Your task to perform on an android device: turn notification dots off Image 0: 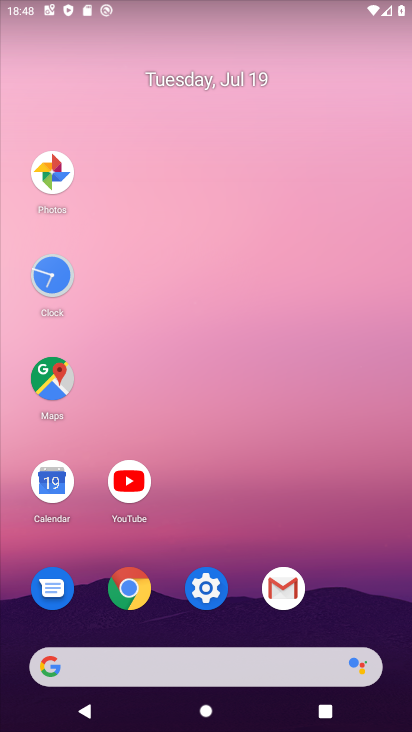
Step 0: click (206, 588)
Your task to perform on an android device: turn notification dots off Image 1: 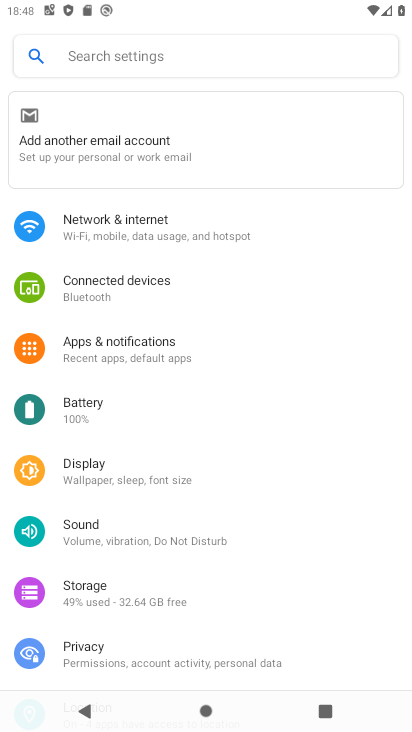
Step 1: click (115, 338)
Your task to perform on an android device: turn notification dots off Image 2: 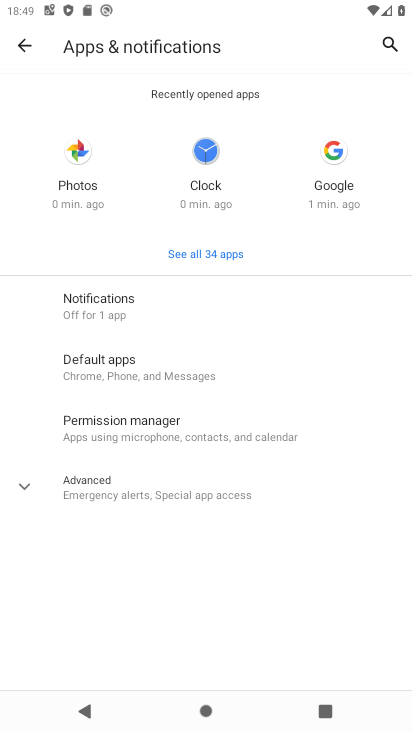
Step 2: click (34, 484)
Your task to perform on an android device: turn notification dots off Image 3: 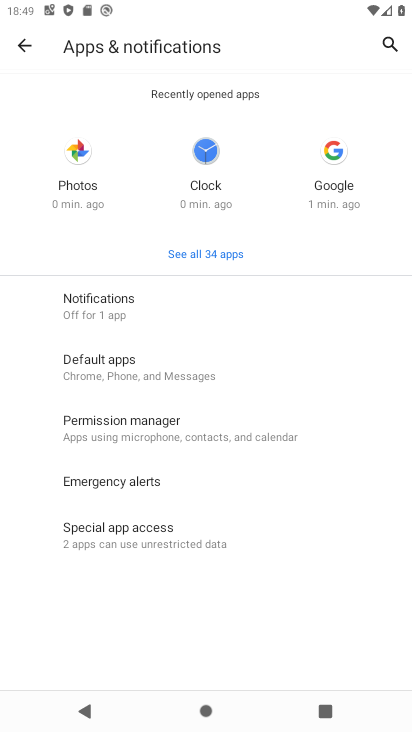
Step 3: click (105, 526)
Your task to perform on an android device: turn notification dots off Image 4: 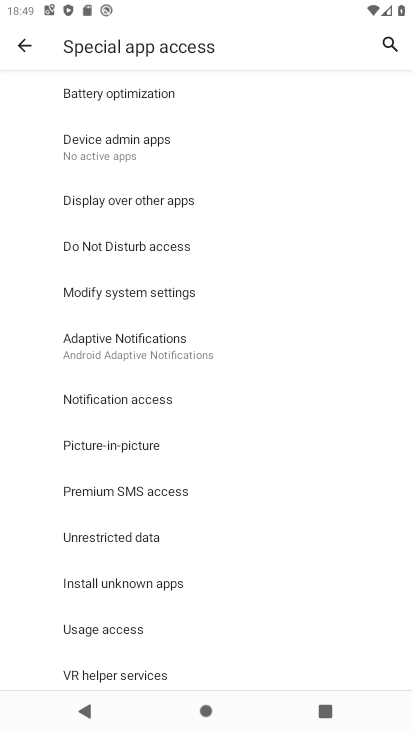
Step 4: click (20, 45)
Your task to perform on an android device: turn notification dots off Image 5: 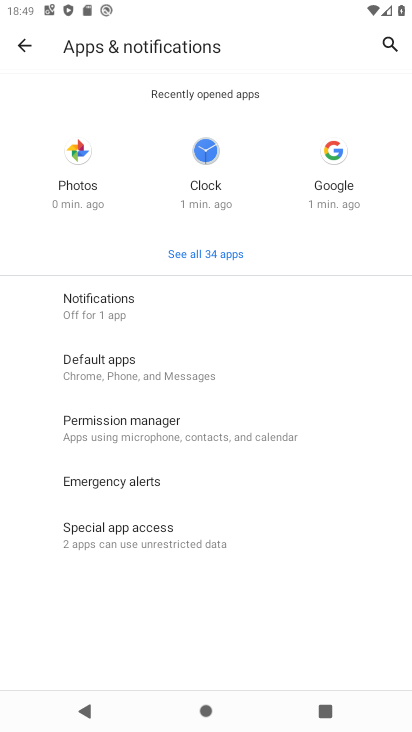
Step 5: click (96, 291)
Your task to perform on an android device: turn notification dots off Image 6: 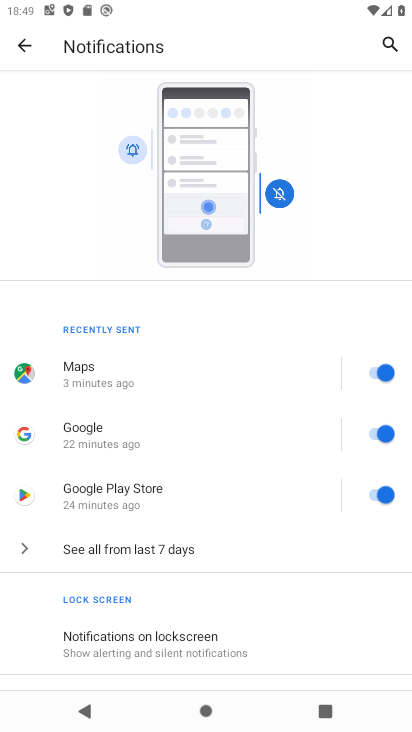
Step 6: drag from (223, 622) to (138, 139)
Your task to perform on an android device: turn notification dots off Image 7: 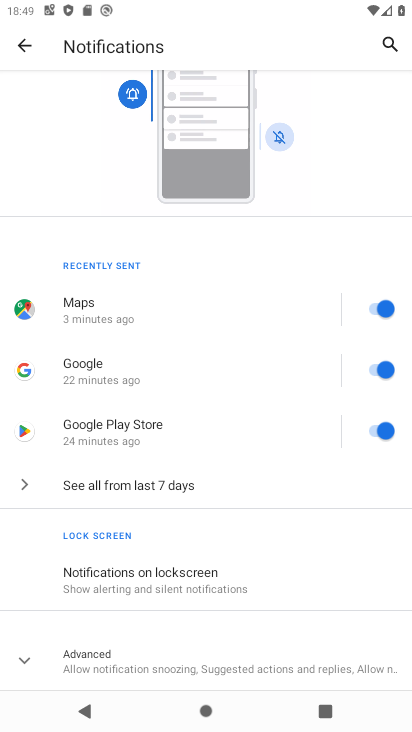
Step 7: click (35, 661)
Your task to perform on an android device: turn notification dots off Image 8: 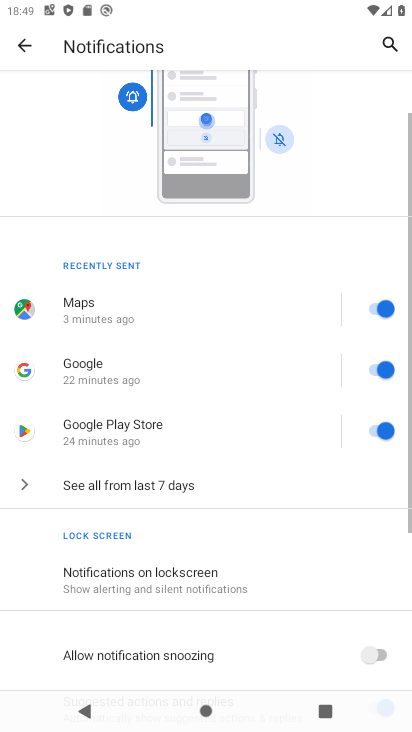
Step 8: drag from (241, 563) to (230, 322)
Your task to perform on an android device: turn notification dots off Image 9: 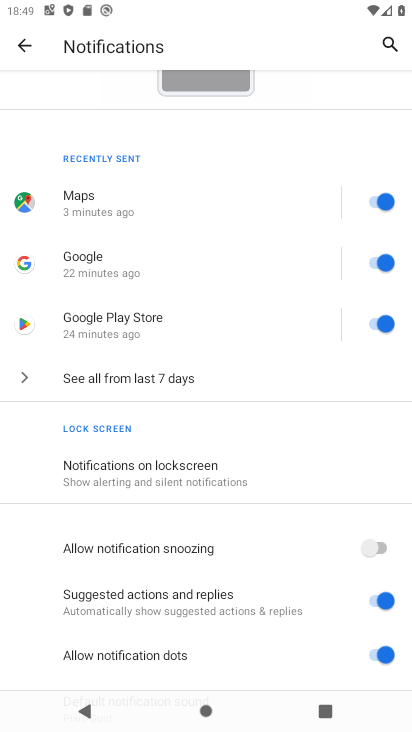
Step 9: click (377, 656)
Your task to perform on an android device: turn notification dots off Image 10: 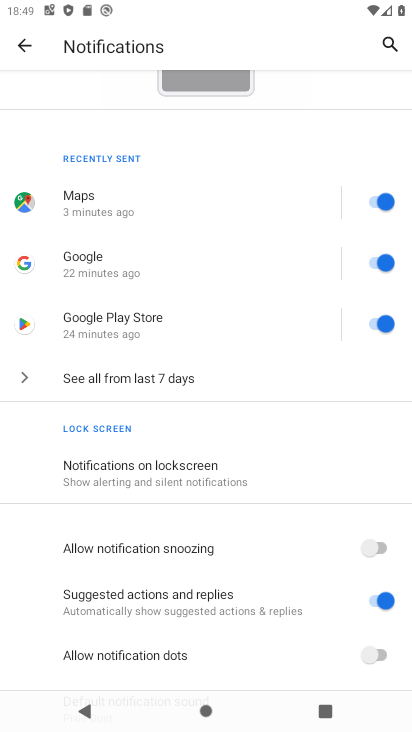
Step 10: task complete